Your task to perform on an android device: Is it going to rain this weekend? Image 0: 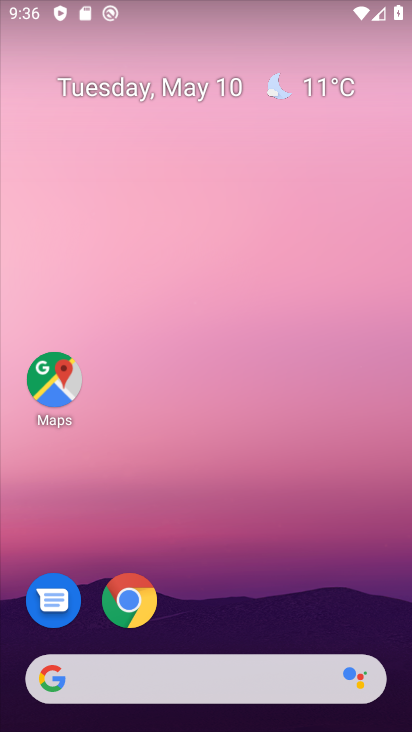
Step 0: drag from (289, 520) to (267, 63)
Your task to perform on an android device: Is it going to rain this weekend? Image 1: 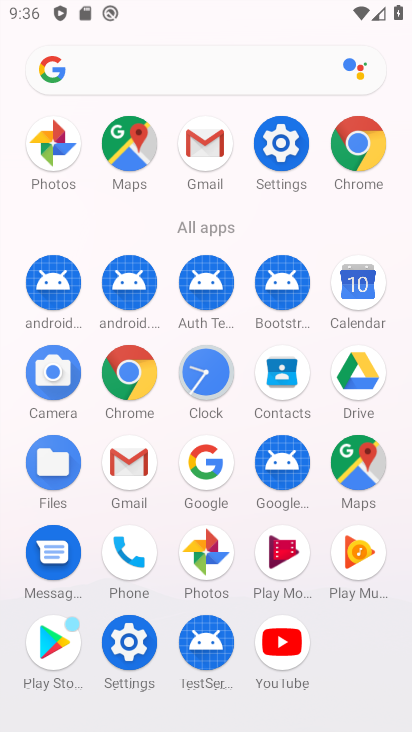
Step 1: press home button
Your task to perform on an android device: Is it going to rain this weekend? Image 2: 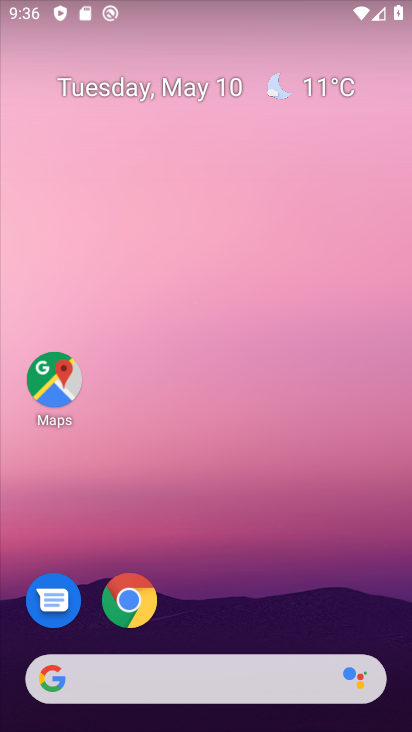
Step 2: click (326, 90)
Your task to perform on an android device: Is it going to rain this weekend? Image 3: 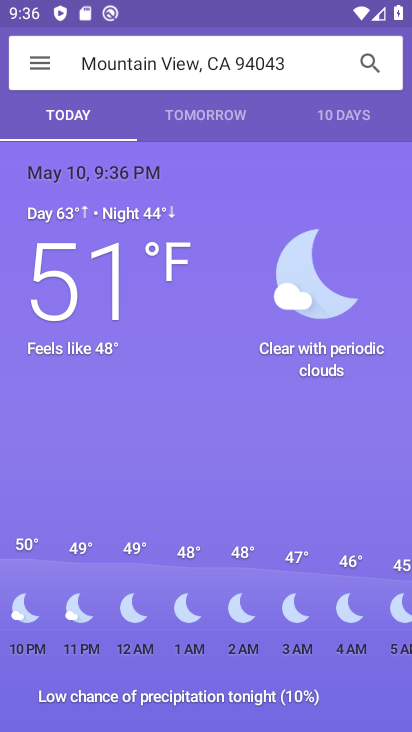
Step 3: click (337, 106)
Your task to perform on an android device: Is it going to rain this weekend? Image 4: 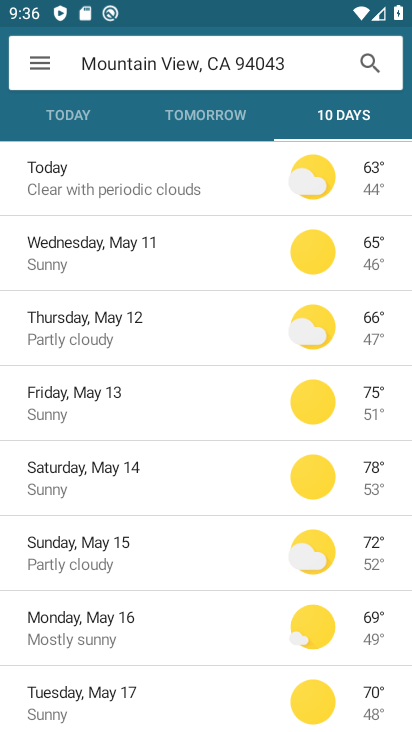
Step 4: task complete